Your task to perform on an android device: turn off javascript in the chrome app Image 0: 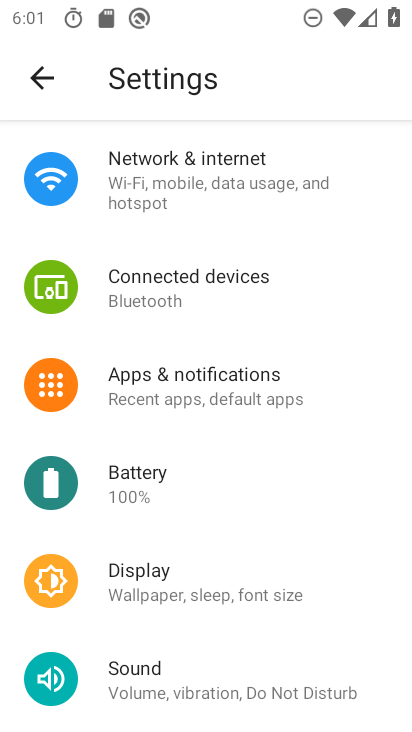
Step 0: press back button
Your task to perform on an android device: turn off javascript in the chrome app Image 1: 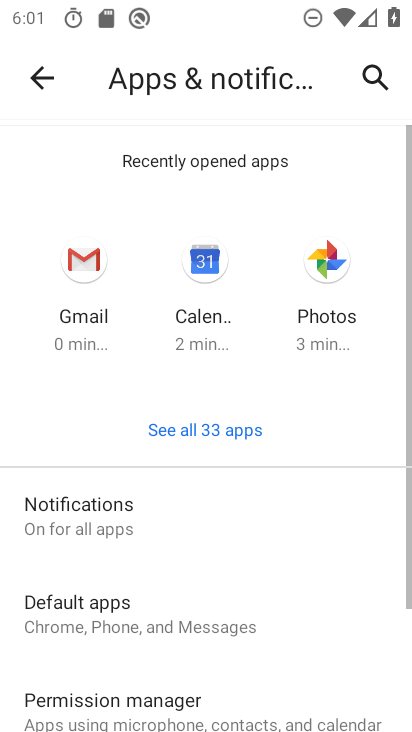
Step 1: press back button
Your task to perform on an android device: turn off javascript in the chrome app Image 2: 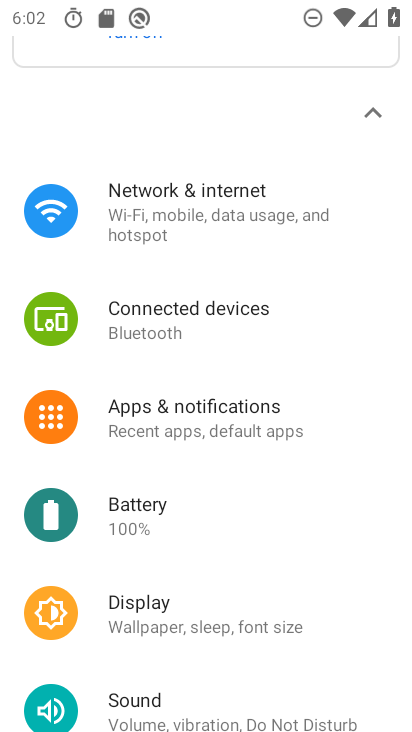
Step 2: press home button
Your task to perform on an android device: turn off javascript in the chrome app Image 3: 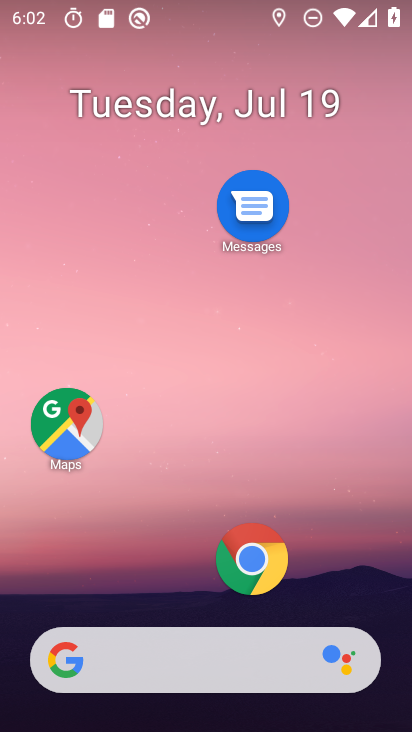
Step 3: click (246, 554)
Your task to perform on an android device: turn off javascript in the chrome app Image 4: 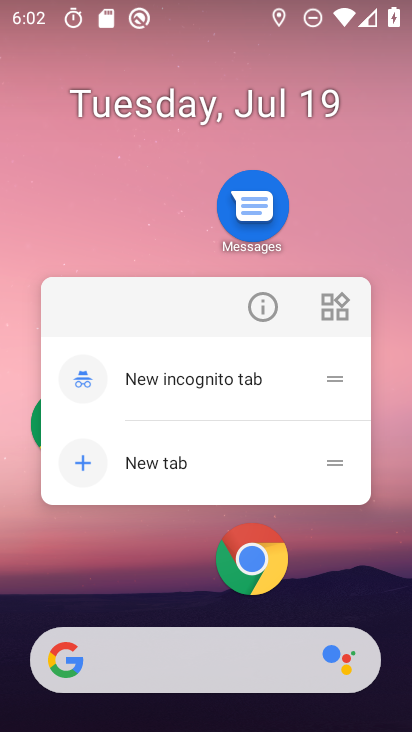
Step 4: click (247, 548)
Your task to perform on an android device: turn off javascript in the chrome app Image 5: 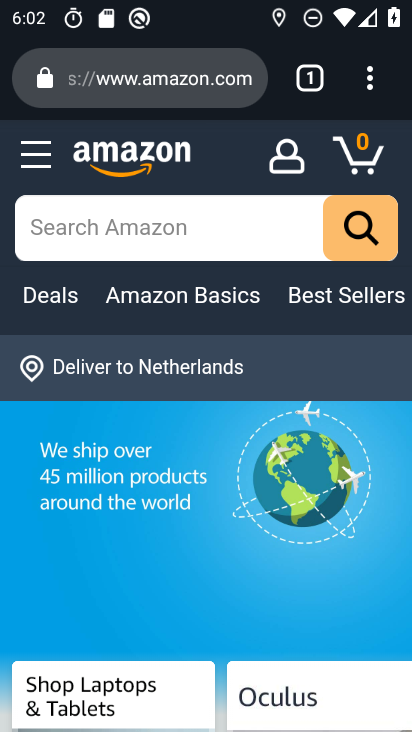
Step 5: drag from (377, 77) to (106, 613)
Your task to perform on an android device: turn off javascript in the chrome app Image 6: 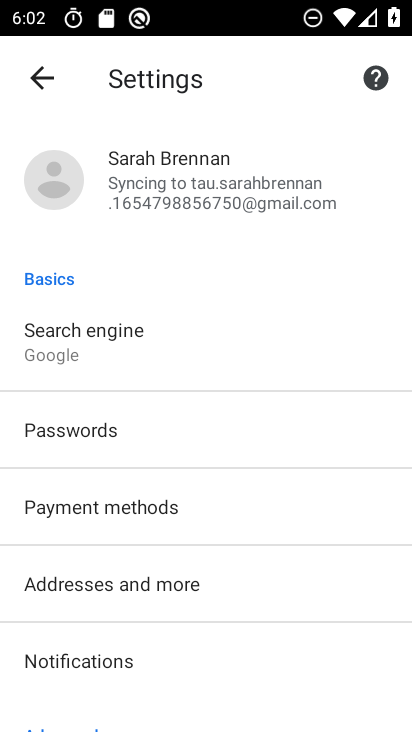
Step 6: drag from (102, 651) to (174, 71)
Your task to perform on an android device: turn off javascript in the chrome app Image 7: 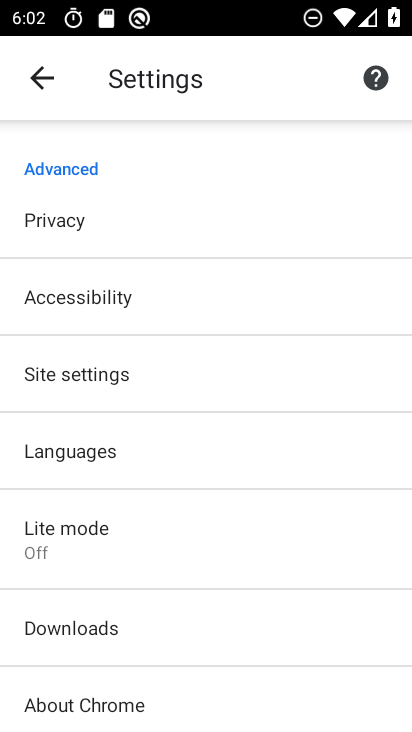
Step 7: click (88, 383)
Your task to perform on an android device: turn off javascript in the chrome app Image 8: 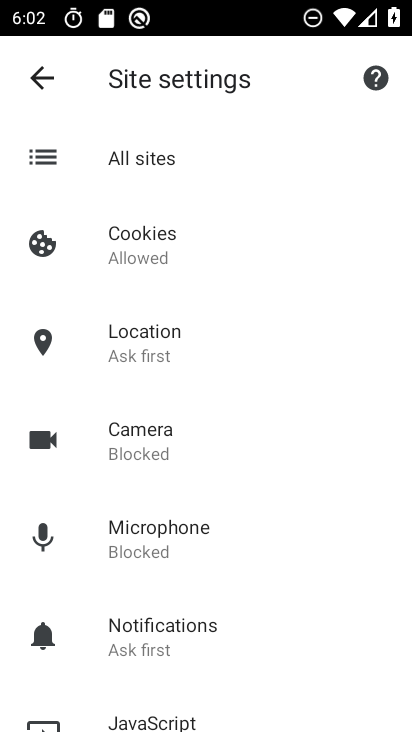
Step 8: click (154, 719)
Your task to perform on an android device: turn off javascript in the chrome app Image 9: 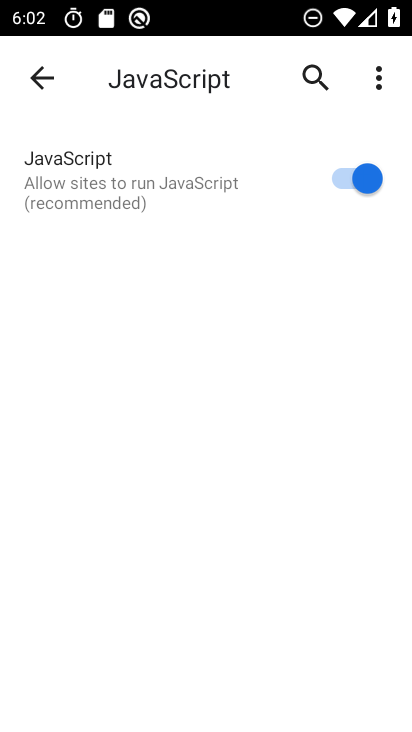
Step 9: click (354, 174)
Your task to perform on an android device: turn off javascript in the chrome app Image 10: 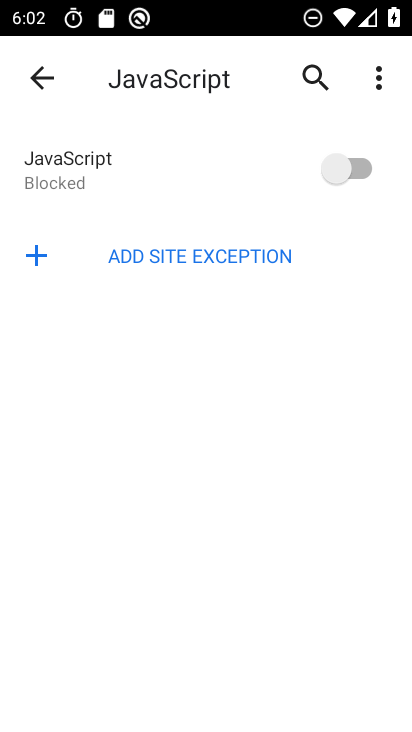
Step 10: task complete